Your task to perform on an android device: Open the map Image 0: 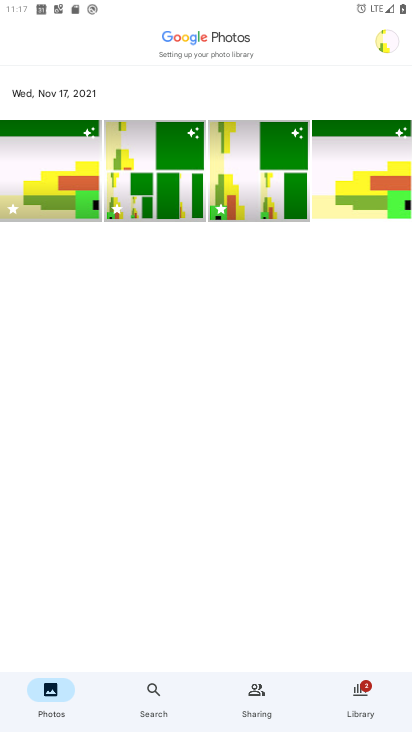
Step 0: press home button
Your task to perform on an android device: Open the map Image 1: 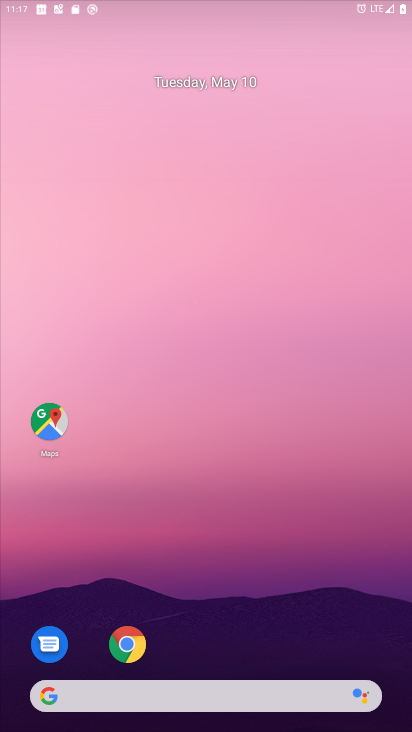
Step 1: drag from (275, 602) to (313, 157)
Your task to perform on an android device: Open the map Image 2: 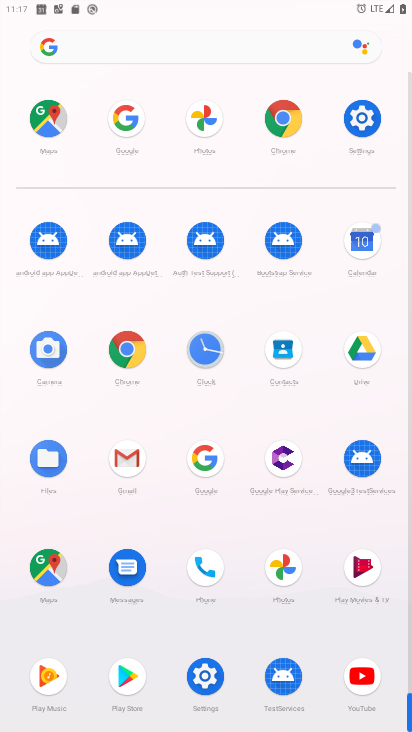
Step 2: click (52, 570)
Your task to perform on an android device: Open the map Image 3: 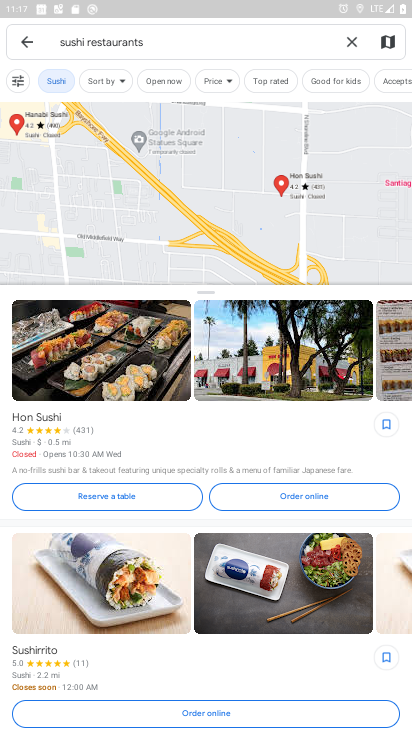
Step 3: click (353, 45)
Your task to perform on an android device: Open the map Image 4: 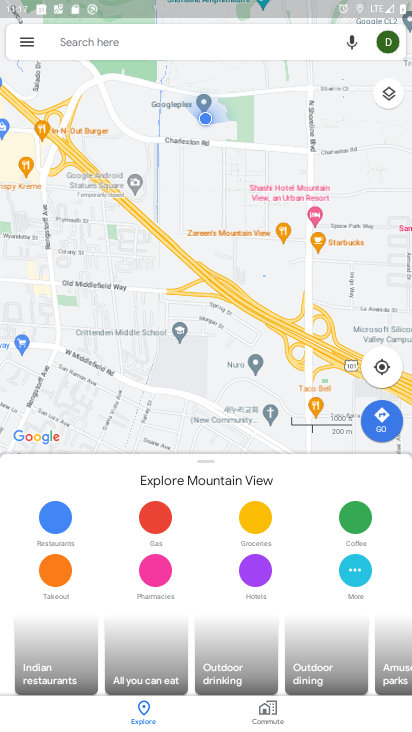
Step 4: task complete